Your task to perform on an android device: toggle notifications settings in the gmail app Image 0: 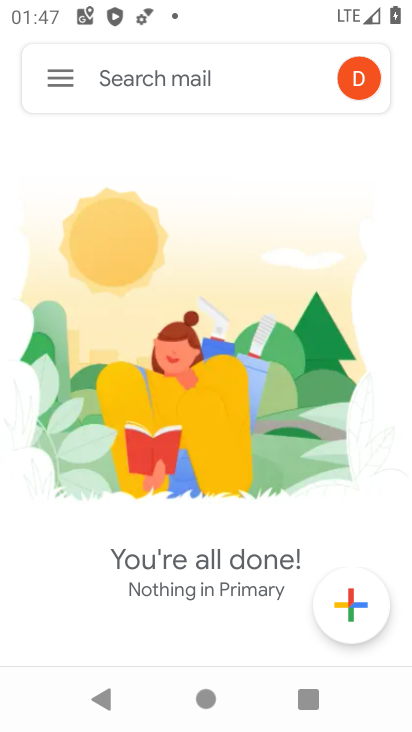
Step 0: press home button
Your task to perform on an android device: toggle notifications settings in the gmail app Image 1: 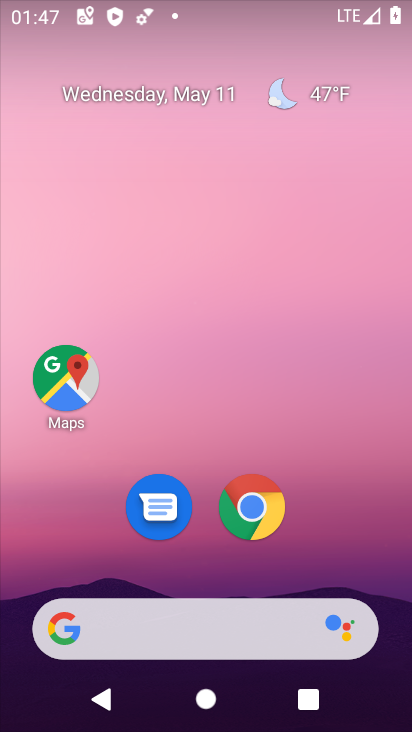
Step 1: drag from (338, 540) to (203, 59)
Your task to perform on an android device: toggle notifications settings in the gmail app Image 2: 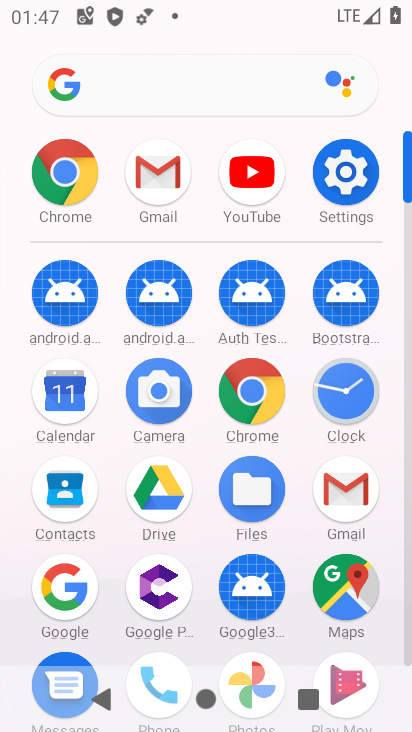
Step 2: click (157, 168)
Your task to perform on an android device: toggle notifications settings in the gmail app Image 3: 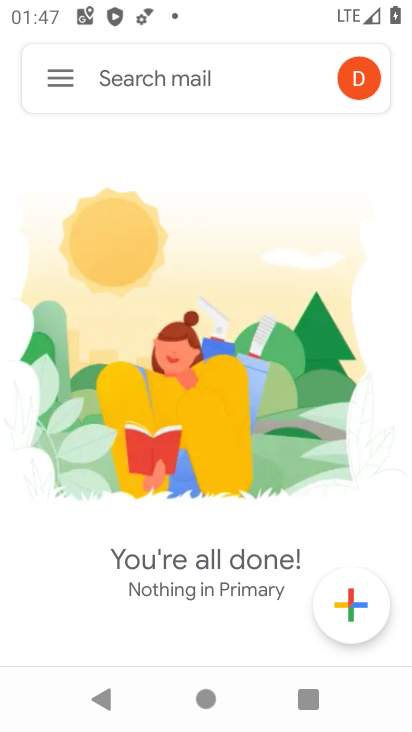
Step 3: click (63, 78)
Your task to perform on an android device: toggle notifications settings in the gmail app Image 4: 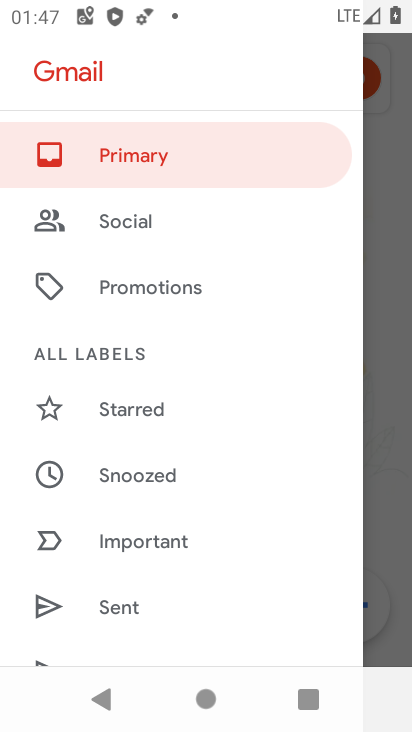
Step 4: drag from (204, 522) to (166, 159)
Your task to perform on an android device: toggle notifications settings in the gmail app Image 5: 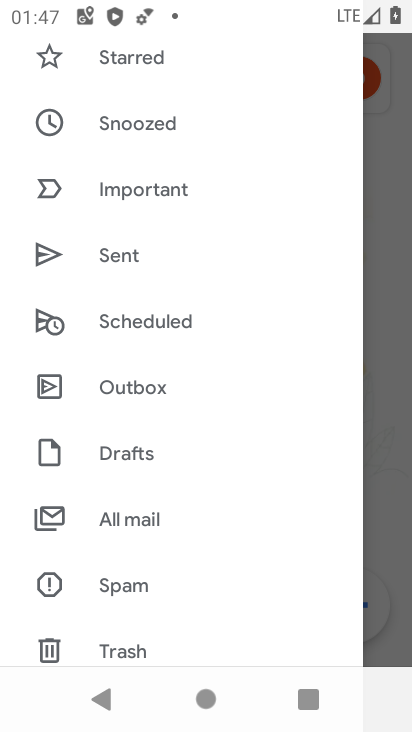
Step 5: drag from (188, 607) to (136, 194)
Your task to perform on an android device: toggle notifications settings in the gmail app Image 6: 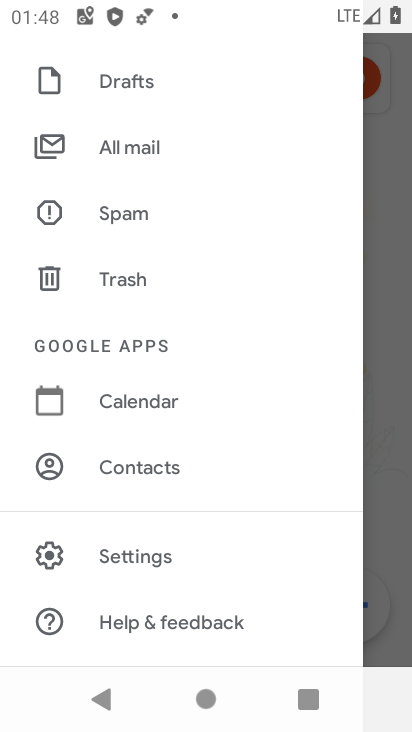
Step 6: click (146, 551)
Your task to perform on an android device: toggle notifications settings in the gmail app Image 7: 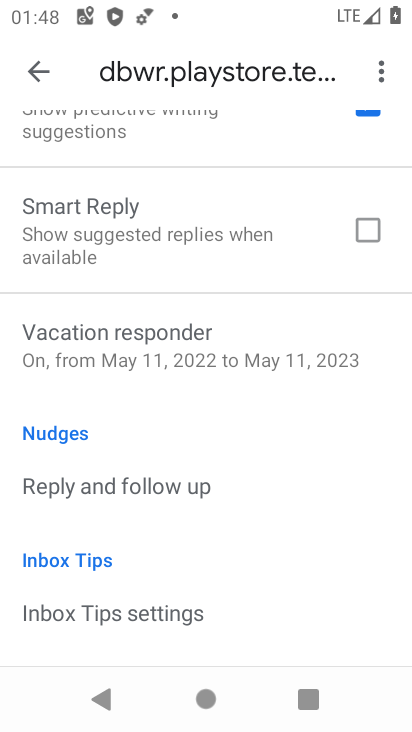
Step 7: drag from (229, 300) to (191, 690)
Your task to perform on an android device: toggle notifications settings in the gmail app Image 8: 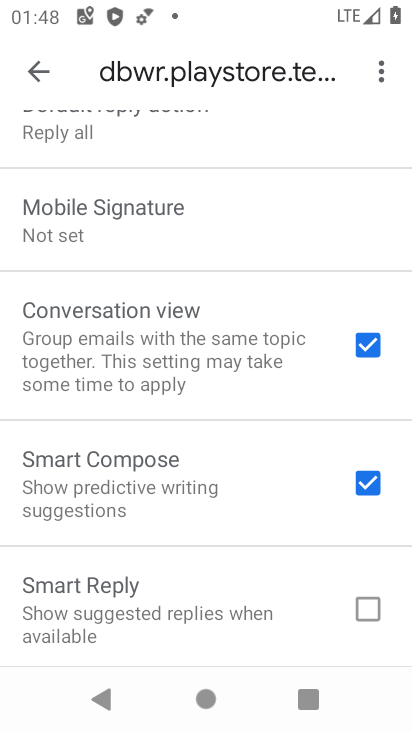
Step 8: drag from (190, 238) to (157, 538)
Your task to perform on an android device: toggle notifications settings in the gmail app Image 9: 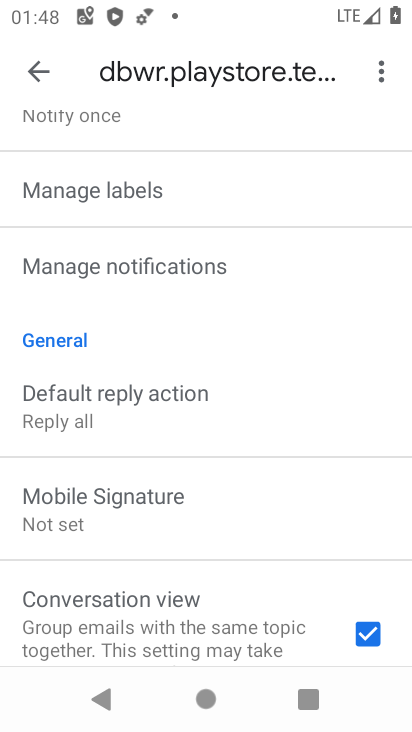
Step 9: click (35, 69)
Your task to perform on an android device: toggle notifications settings in the gmail app Image 10: 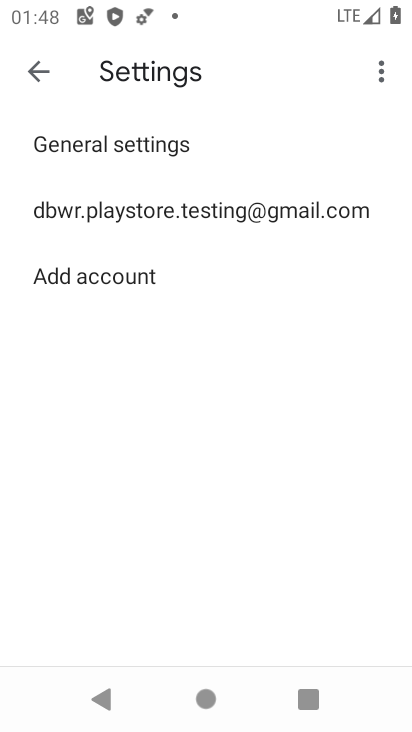
Step 10: click (81, 137)
Your task to perform on an android device: toggle notifications settings in the gmail app Image 11: 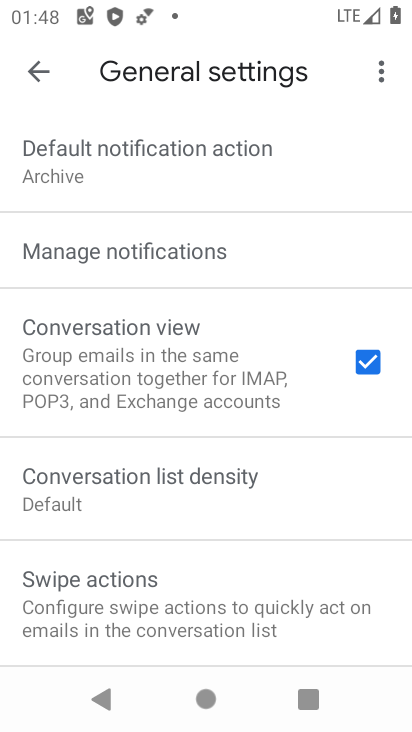
Step 11: click (124, 254)
Your task to perform on an android device: toggle notifications settings in the gmail app Image 12: 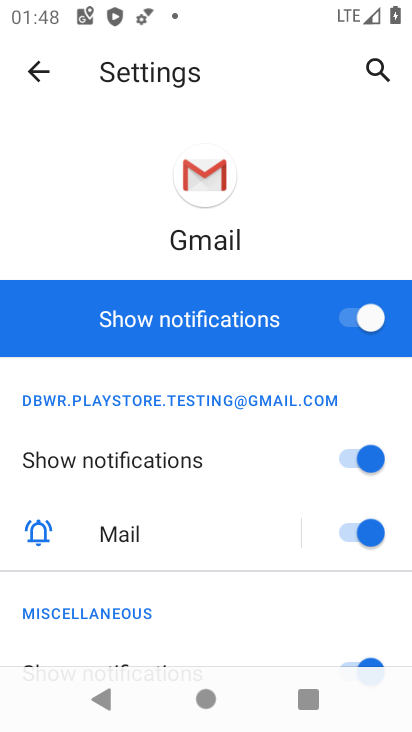
Step 12: click (358, 317)
Your task to perform on an android device: toggle notifications settings in the gmail app Image 13: 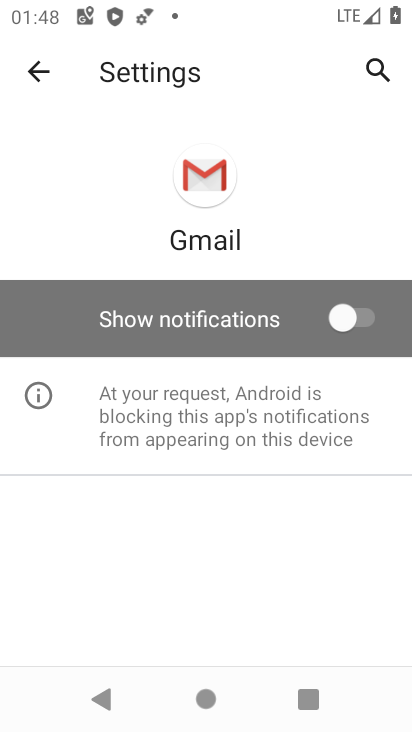
Step 13: task complete